Your task to perform on an android device: Clear all items from cart on newegg.com. Add "alienware aurora" to the cart on newegg.com Image 0: 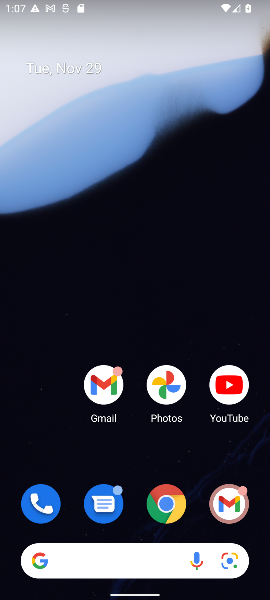
Step 0: click (168, 503)
Your task to perform on an android device: Clear all items from cart on newegg.com. Add "alienware aurora" to the cart on newegg.com Image 1: 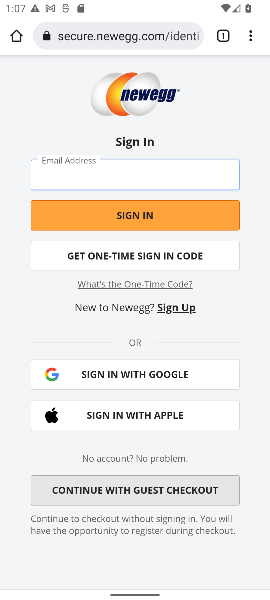
Step 1: press back button
Your task to perform on an android device: Clear all items from cart on newegg.com. Add "alienware aurora" to the cart on newegg.com Image 2: 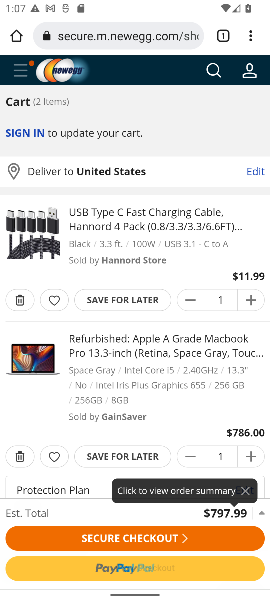
Step 2: click (16, 301)
Your task to perform on an android device: Clear all items from cart on newegg.com. Add "alienware aurora" to the cart on newegg.com Image 3: 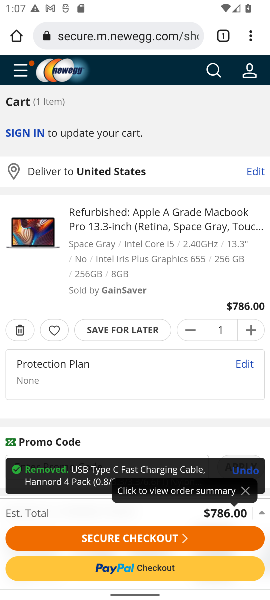
Step 3: click (21, 327)
Your task to perform on an android device: Clear all items from cart on newegg.com. Add "alienware aurora" to the cart on newegg.com Image 4: 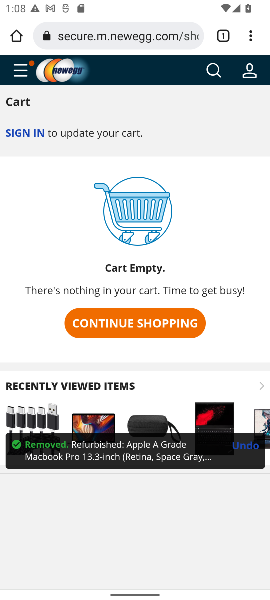
Step 4: click (107, 319)
Your task to perform on an android device: Clear all items from cart on newegg.com. Add "alienware aurora" to the cart on newegg.com Image 5: 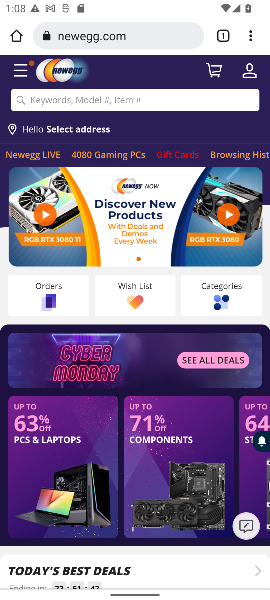
Step 5: click (43, 101)
Your task to perform on an android device: Clear all items from cart on newegg.com. Add "alienware aurora" to the cart on newegg.com Image 6: 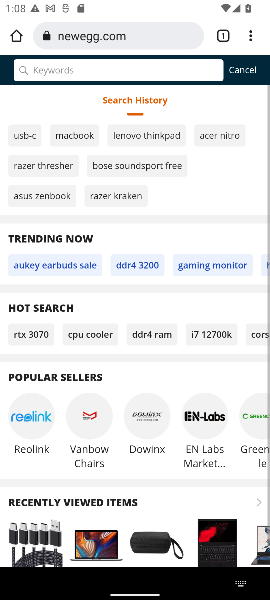
Step 6: type "alienware aurora"
Your task to perform on an android device: Clear all items from cart on newegg.com. Add "alienware aurora" to the cart on newegg.com Image 7: 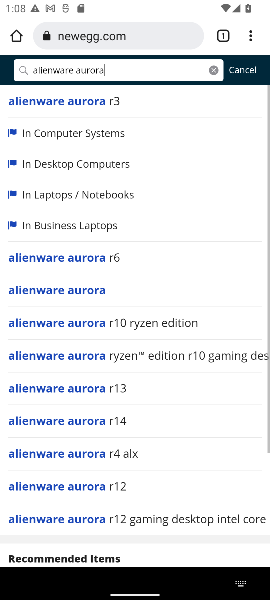
Step 7: click (68, 287)
Your task to perform on an android device: Clear all items from cart on newegg.com. Add "alienware aurora" to the cart on newegg.com Image 8: 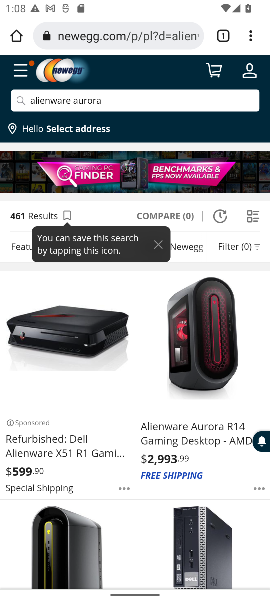
Step 8: drag from (53, 387) to (58, 299)
Your task to perform on an android device: Clear all items from cart on newegg.com. Add "alienware aurora" to the cart on newegg.com Image 9: 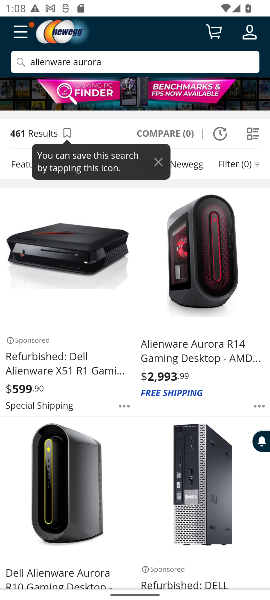
Step 9: click (213, 303)
Your task to perform on an android device: Clear all items from cart on newegg.com. Add "alienware aurora" to the cart on newegg.com Image 10: 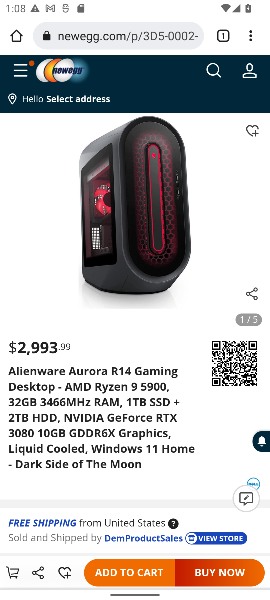
Step 10: click (109, 572)
Your task to perform on an android device: Clear all items from cart on newegg.com. Add "alienware aurora" to the cart on newegg.com Image 11: 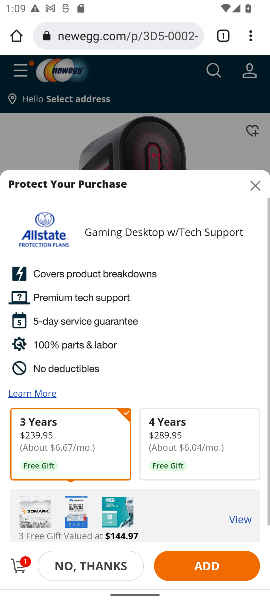
Step 11: task complete